Your task to perform on an android device: What's the weather today? Image 0: 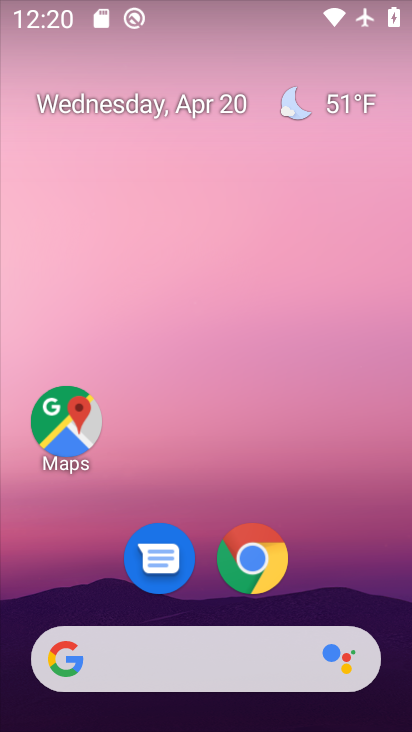
Step 0: click (346, 102)
Your task to perform on an android device: What's the weather today? Image 1: 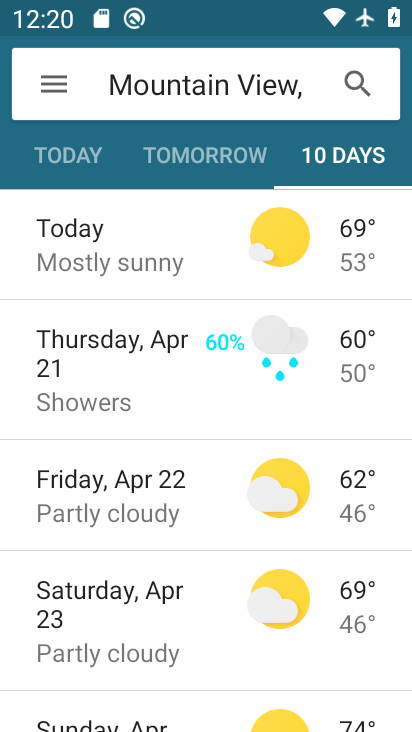
Step 1: click (59, 160)
Your task to perform on an android device: What's the weather today? Image 2: 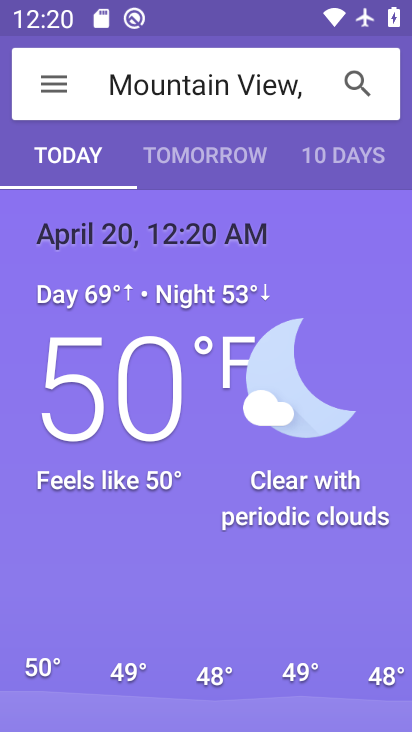
Step 2: task complete